Your task to perform on an android device: install app "Reddit" Image 0: 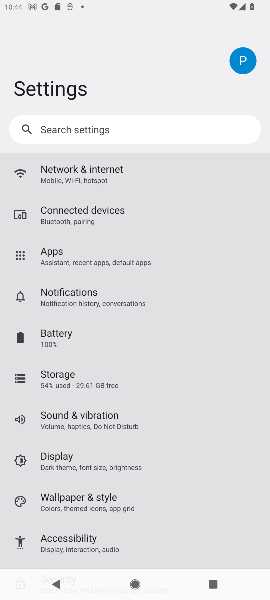
Step 0: press home button
Your task to perform on an android device: install app "Reddit" Image 1: 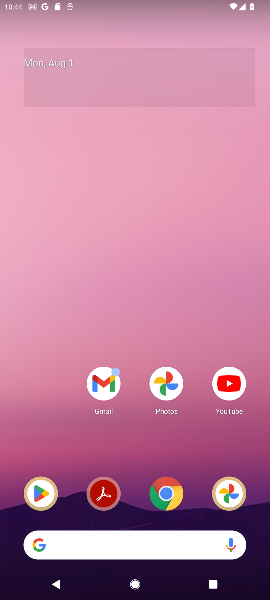
Step 1: click (38, 492)
Your task to perform on an android device: install app "Reddit" Image 2: 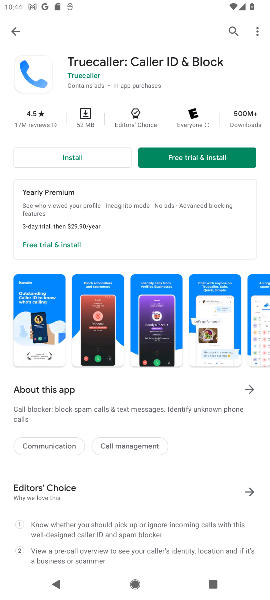
Step 2: click (235, 33)
Your task to perform on an android device: install app "Reddit" Image 3: 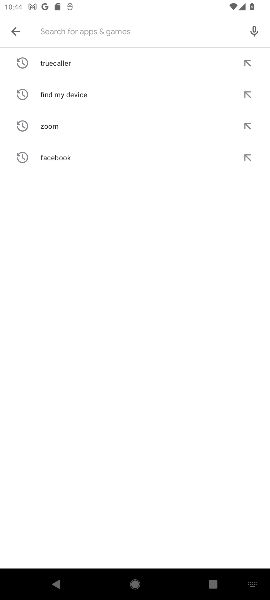
Step 3: type "reddkit"
Your task to perform on an android device: install app "Reddit" Image 4: 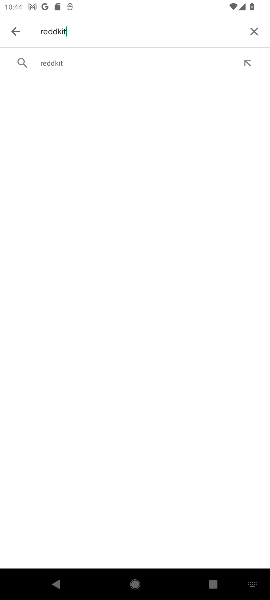
Step 4: click (63, 78)
Your task to perform on an android device: install app "Reddit" Image 5: 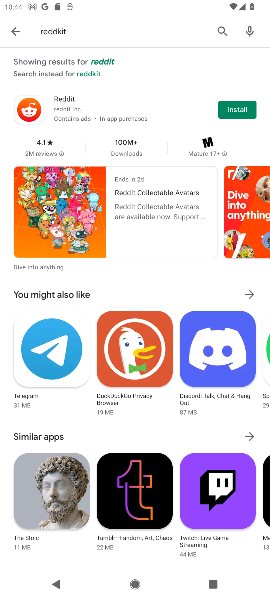
Step 5: task complete